Your task to perform on an android device: Open calendar and show me the third week of next month Image 0: 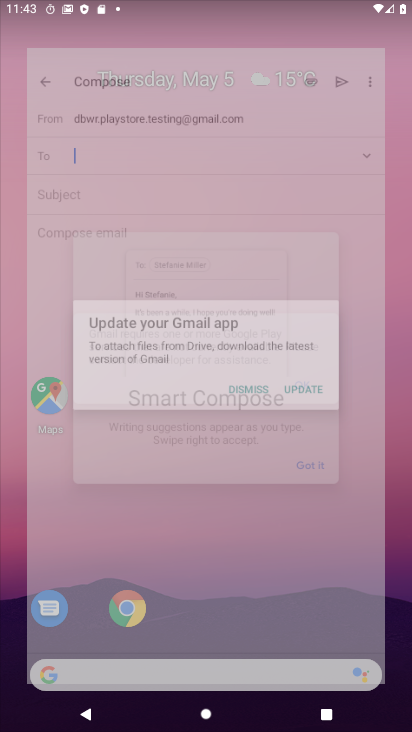
Step 0: drag from (223, 580) to (230, 127)
Your task to perform on an android device: Open calendar and show me the third week of next month Image 1: 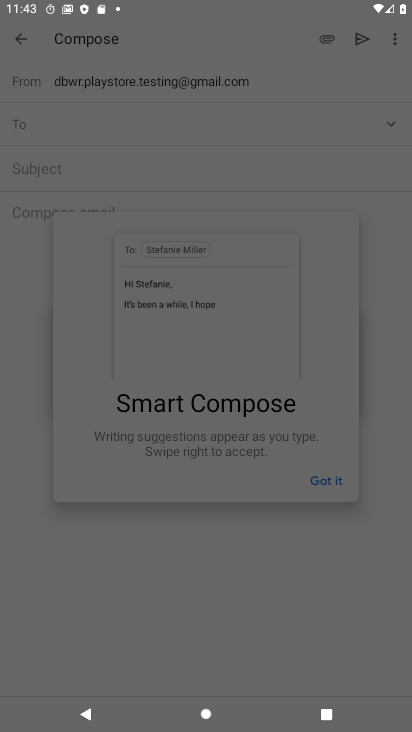
Step 1: press home button
Your task to perform on an android device: Open calendar and show me the third week of next month Image 2: 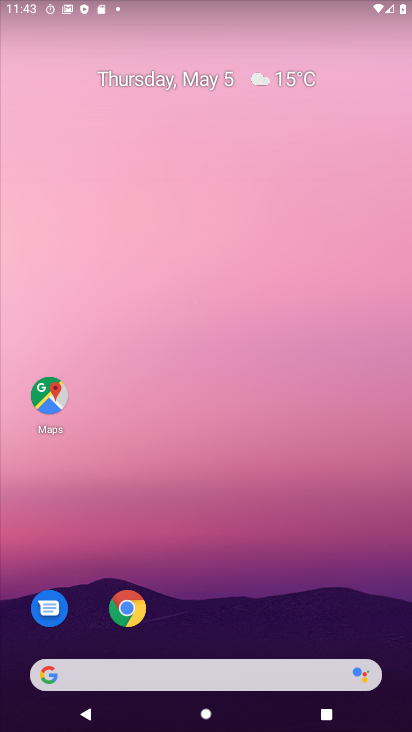
Step 2: drag from (209, 548) to (235, 17)
Your task to perform on an android device: Open calendar and show me the third week of next month Image 3: 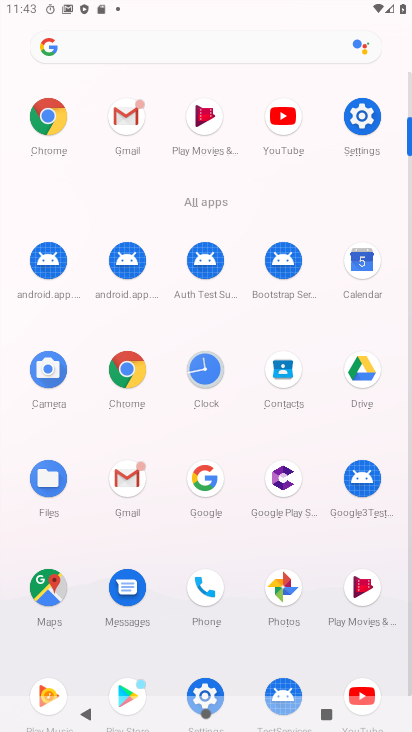
Step 3: click (367, 263)
Your task to perform on an android device: Open calendar and show me the third week of next month Image 4: 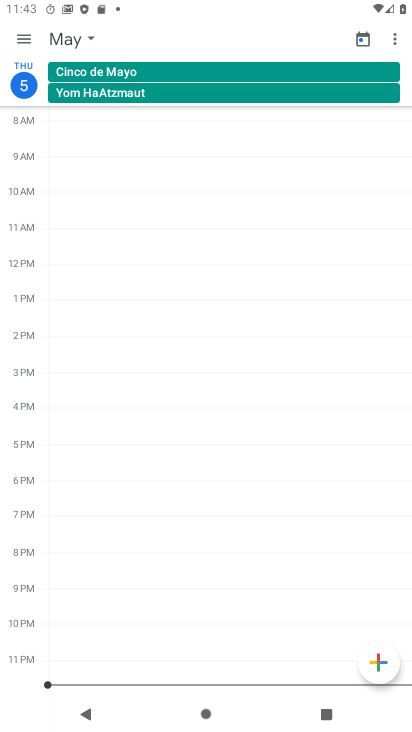
Step 4: click (367, 36)
Your task to perform on an android device: Open calendar and show me the third week of next month Image 5: 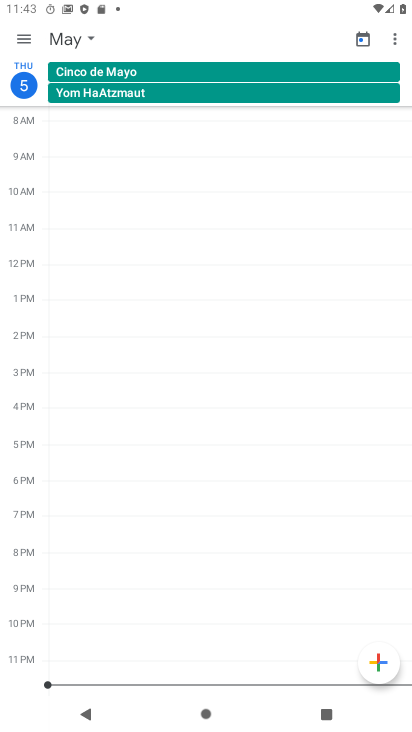
Step 5: click (90, 41)
Your task to perform on an android device: Open calendar and show me the third week of next month Image 6: 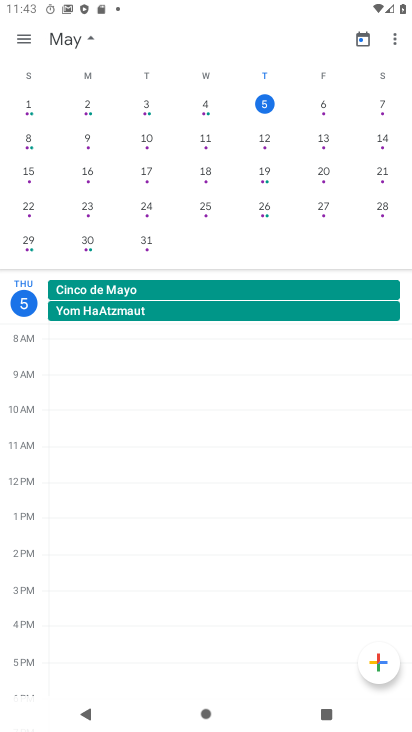
Step 6: drag from (296, 181) to (0, 172)
Your task to perform on an android device: Open calendar and show me the third week of next month Image 7: 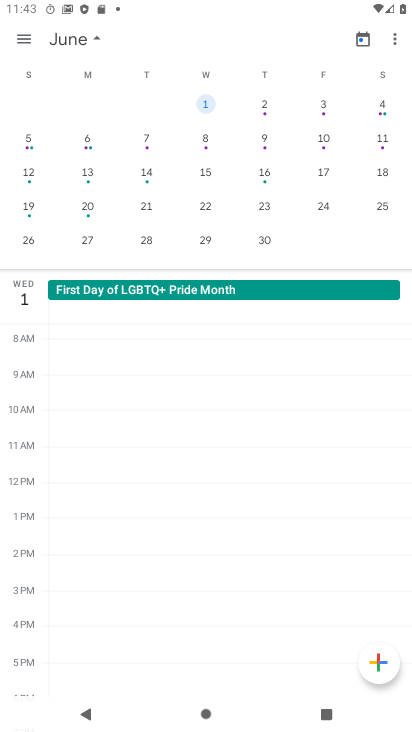
Step 7: click (93, 205)
Your task to perform on an android device: Open calendar and show me the third week of next month Image 8: 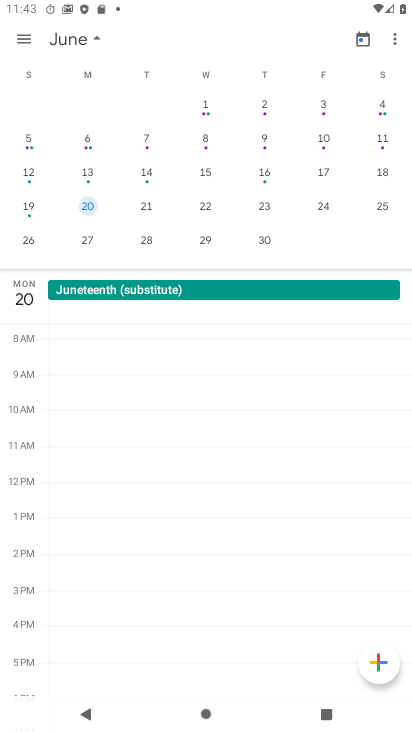
Step 8: click (33, 42)
Your task to perform on an android device: Open calendar and show me the third week of next month Image 9: 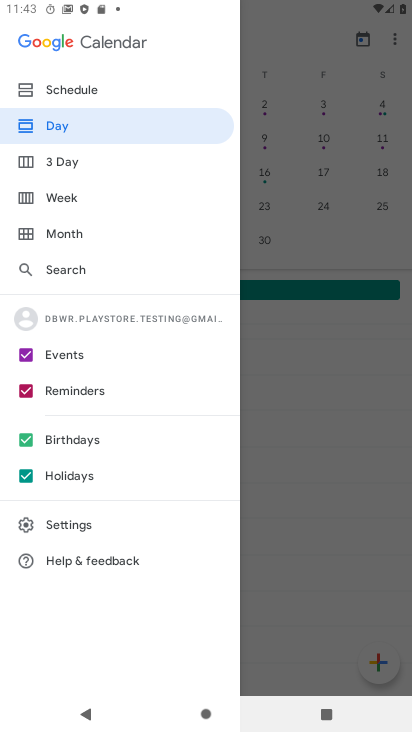
Step 9: click (67, 199)
Your task to perform on an android device: Open calendar and show me the third week of next month Image 10: 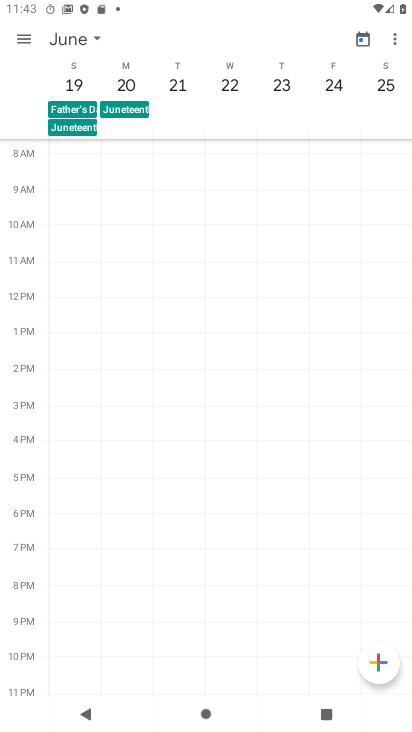
Step 10: task complete